Your task to perform on an android device: Open Google Chrome and open the bookmarks view Image 0: 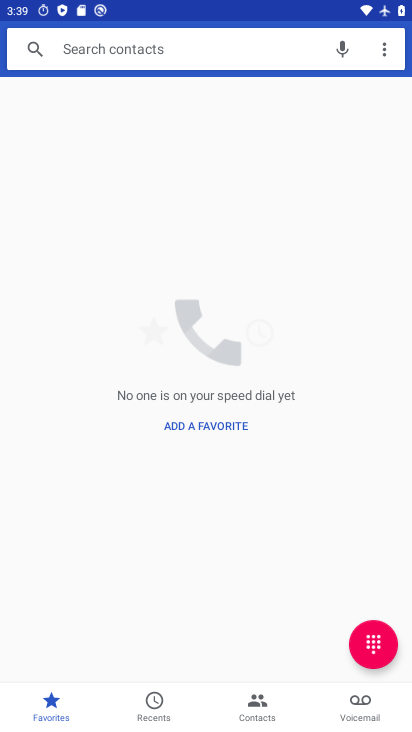
Step 0: press back button
Your task to perform on an android device: Open Google Chrome and open the bookmarks view Image 1: 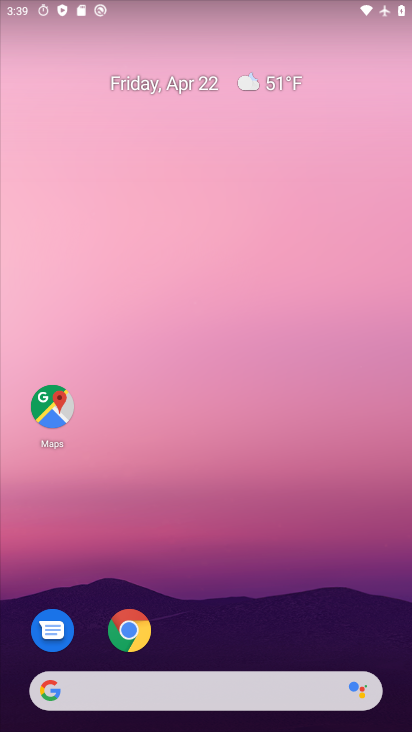
Step 1: drag from (303, 563) to (246, 131)
Your task to perform on an android device: Open Google Chrome and open the bookmarks view Image 2: 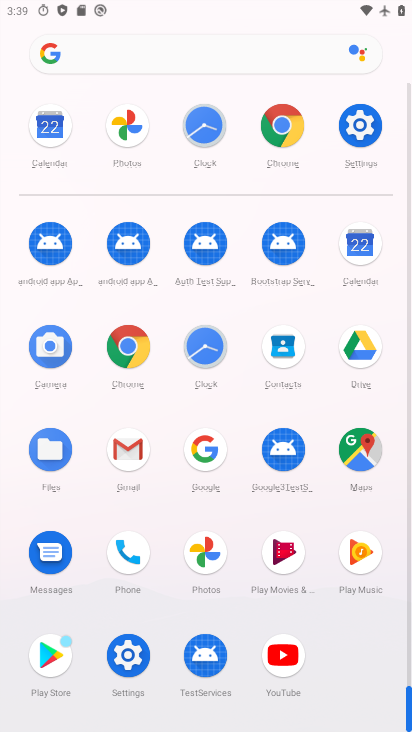
Step 2: drag from (2, 427) to (18, 177)
Your task to perform on an android device: Open Google Chrome and open the bookmarks view Image 3: 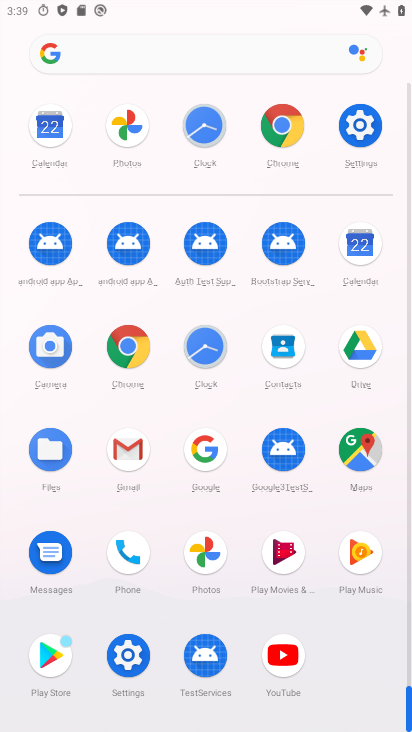
Step 3: drag from (7, 486) to (10, 308)
Your task to perform on an android device: Open Google Chrome and open the bookmarks view Image 4: 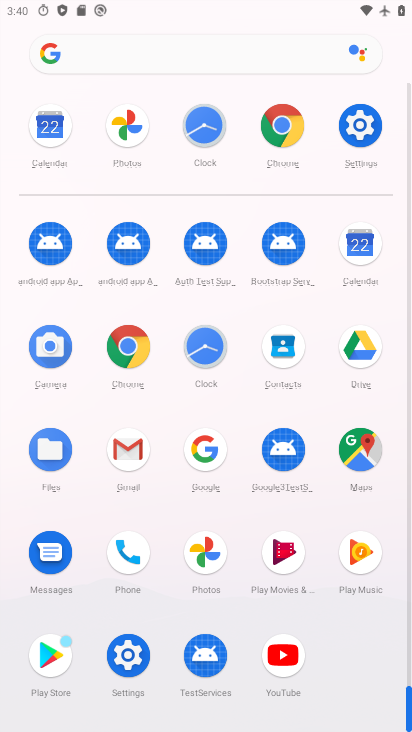
Step 4: click (280, 122)
Your task to perform on an android device: Open Google Chrome and open the bookmarks view Image 5: 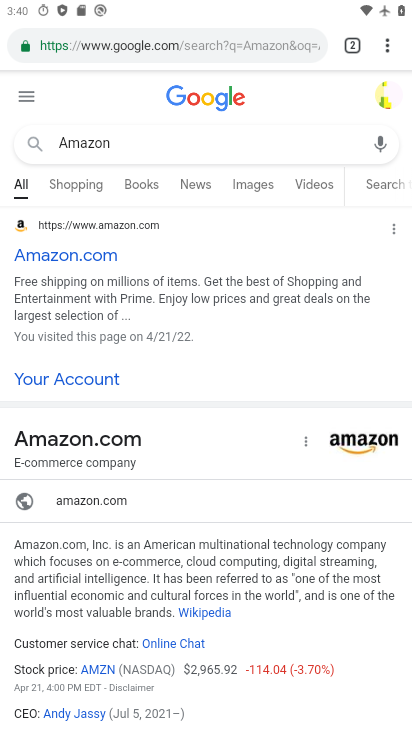
Step 5: task complete